Your task to perform on an android device: find photos in the google photos app Image 0: 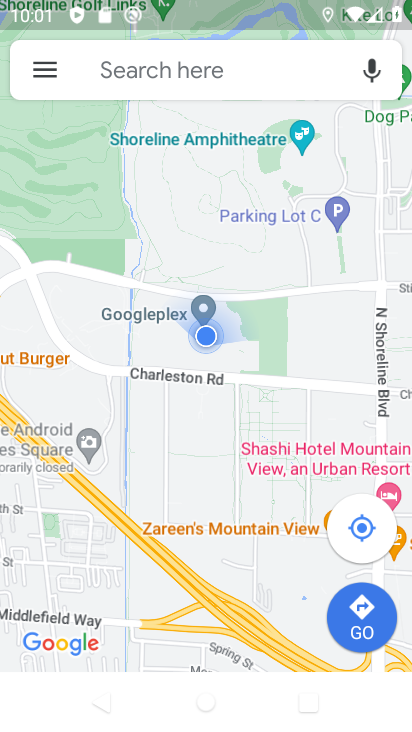
Step 0: press home button
Your task to perform on an android device: find photos in the google photos app Image 1: 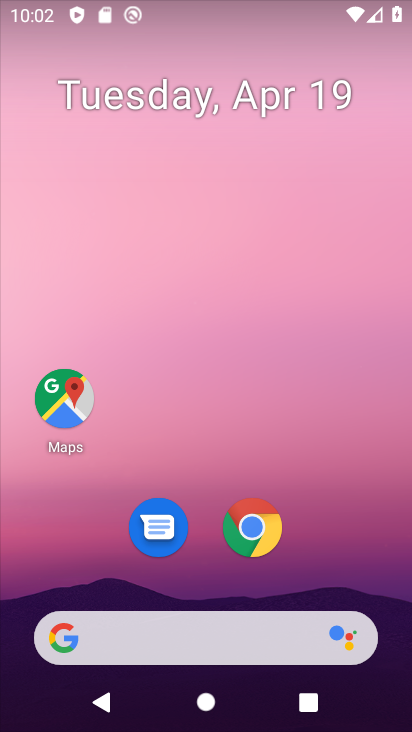
Step 1: drag from (324, 563) to (335, 139)
Your task to perform on an android device: find photos in the google photos app Image 2: 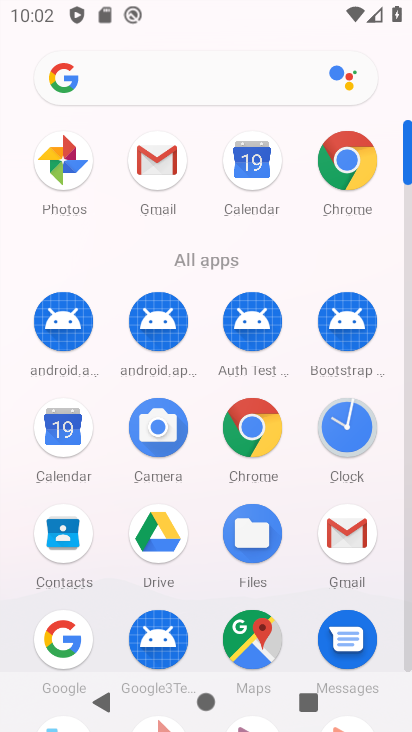
Step 2: drag from (205, 572) to (210, 345)
Your task to perform on an android device: find photos in the google photos app Image 3: 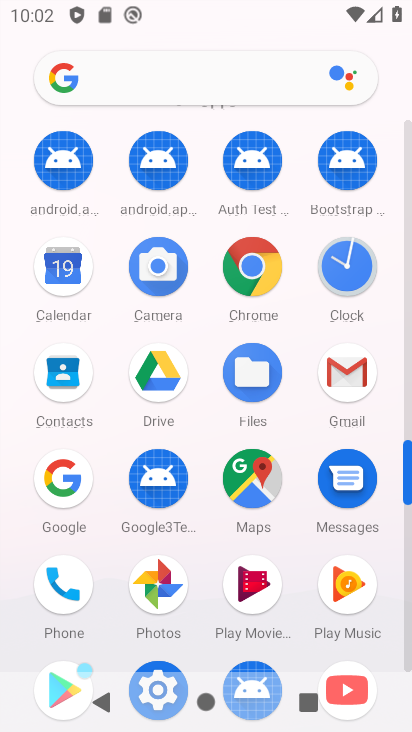
Step 3: click (165, 575)
Your task to perform on an android device: find photos in the google photos app Image 4: 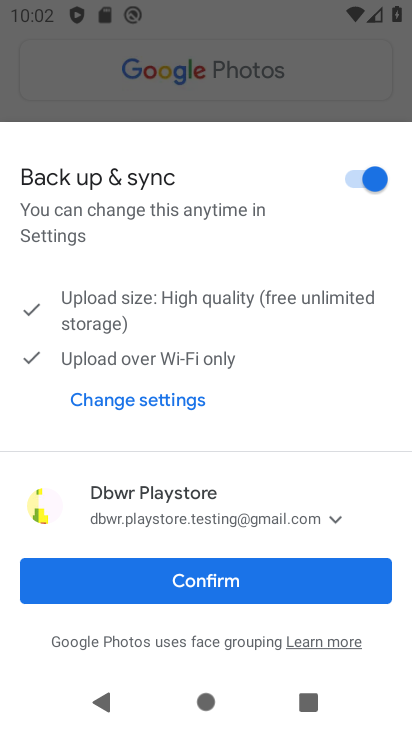
Step 4: click (205, 594)
Your task to perform on an android device: find photos in the google photos app Image 5: 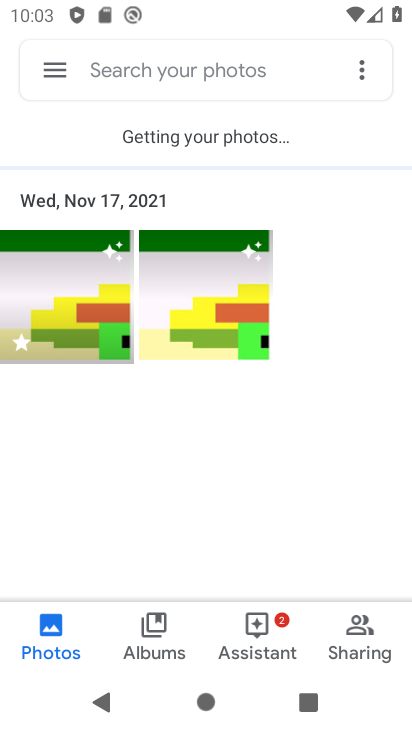
Step 5: task complete